Your task to perform on an android device: What's the weather going to be tomorrow? Image 0: 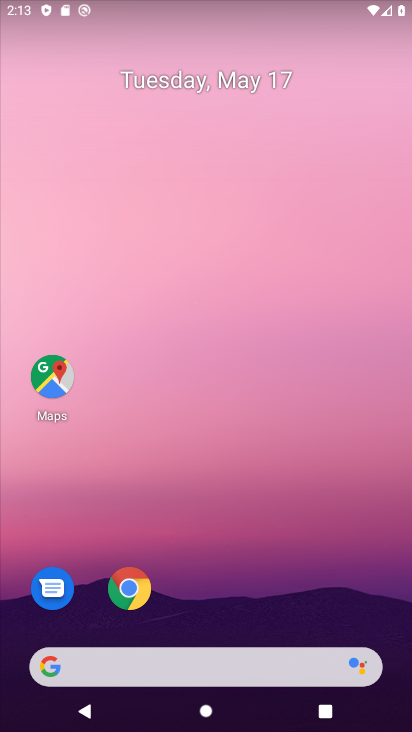
Step 0: drag from (264, 539) to (198, 87)
Your task to perform on an android device: What's the weather going to be tomorrow? Image 1: 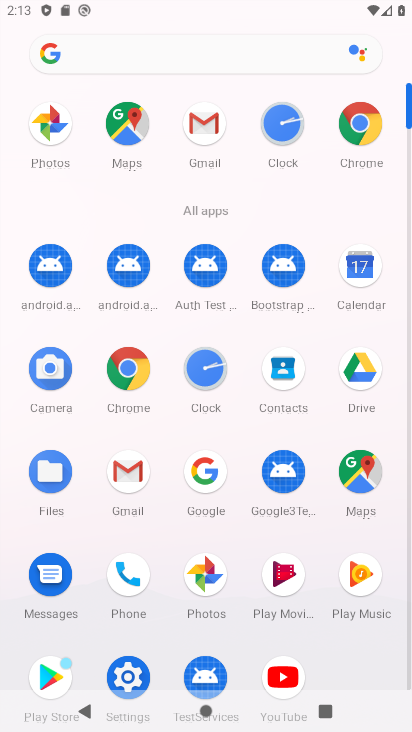
Step 1: click (209, 475)
Your task to perform on an android device: What's the weather going to be tomorrow? Image 2: 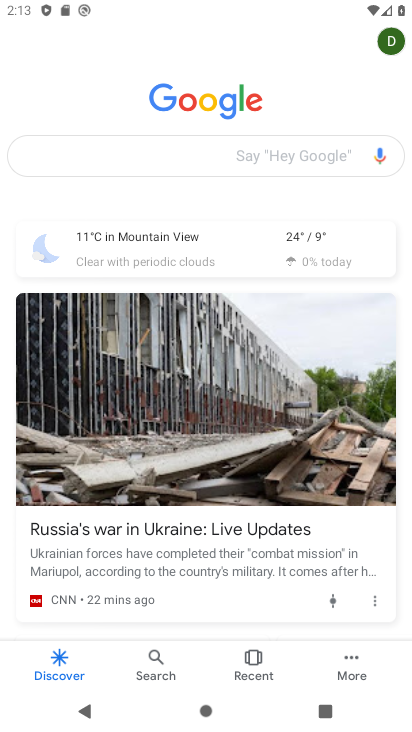
Step 2: click (179, 242)
Your task to perform on an android device: What's the weather going to be tomorrow? Image 3: 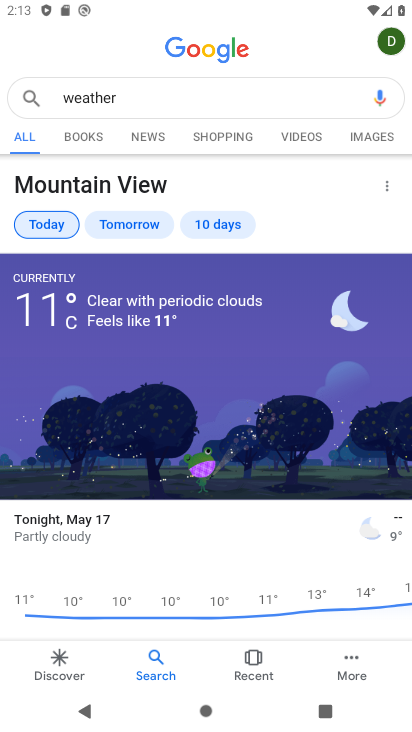
Step 3: click (127, 222)
Your task to perform on an android device: What's the weather going to be tomorrow? Image 4: 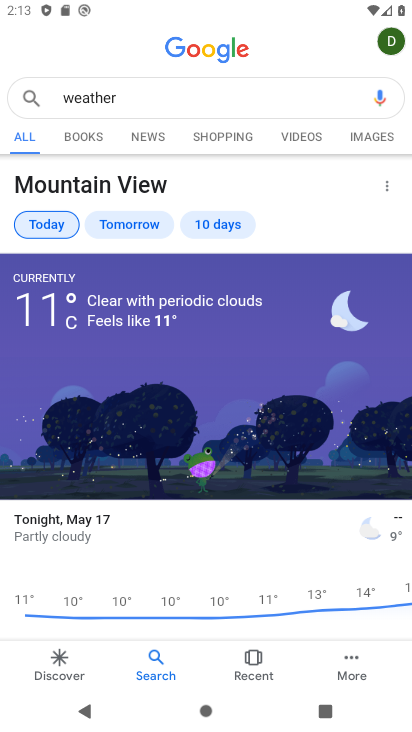
Step 4: click (137, 221)
Your task to perform on an android device: What's the weather going to be tomorrow? Image 5: 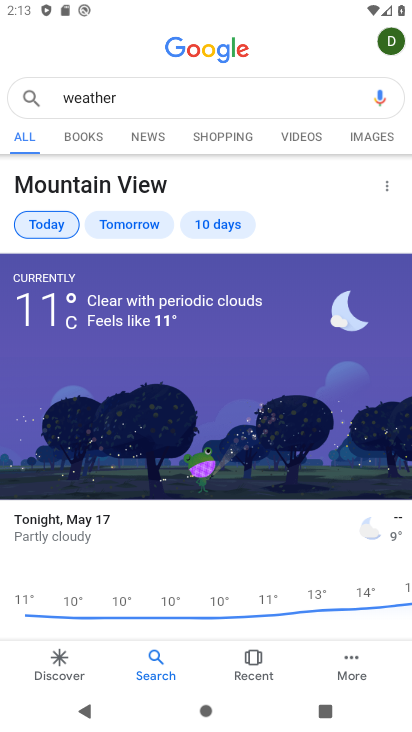
Step 5: click (142, 102)
Your task to perform on an android device: What's the weather going to be tomorrow? Image 6: 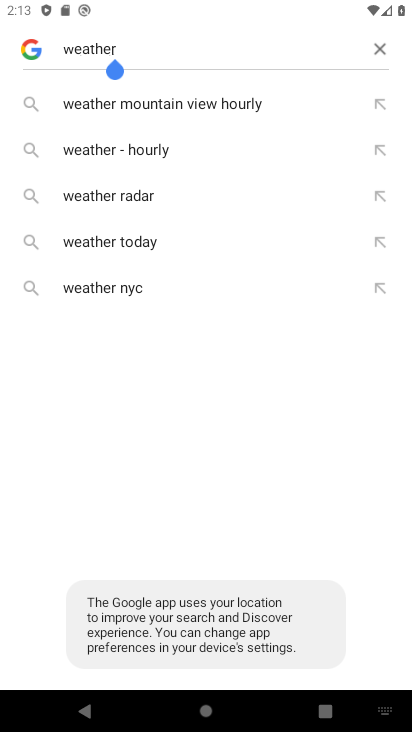
Step 6: click (373, 47)
Your task to perform on an android device: What's the weather going to be tomorrow? Image 7: 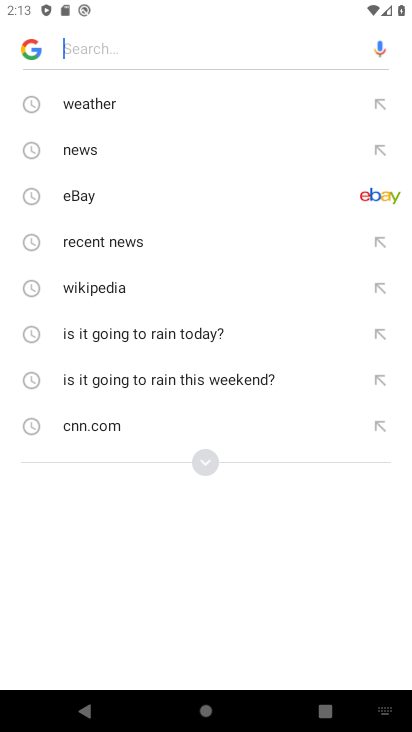
Step 7: type "What's the weather going to be tomorrow?"
Your task to perform on an android device: What's the weather going to be tomorrow? Image 8: 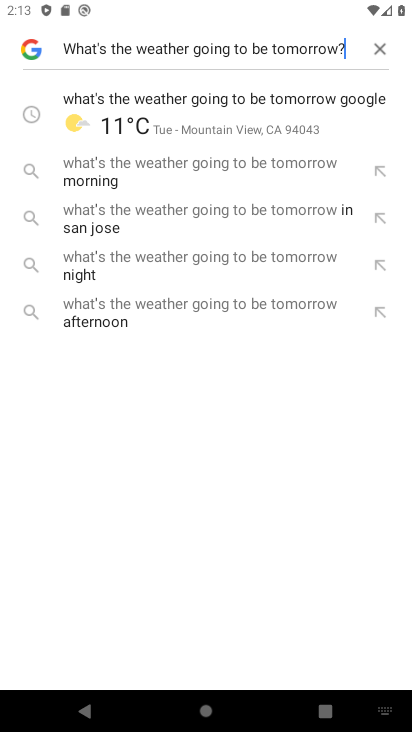
Step 8: click (259, 107)
Your task to perform on an android device: What's the weather going to be tomorrow? Image 9: 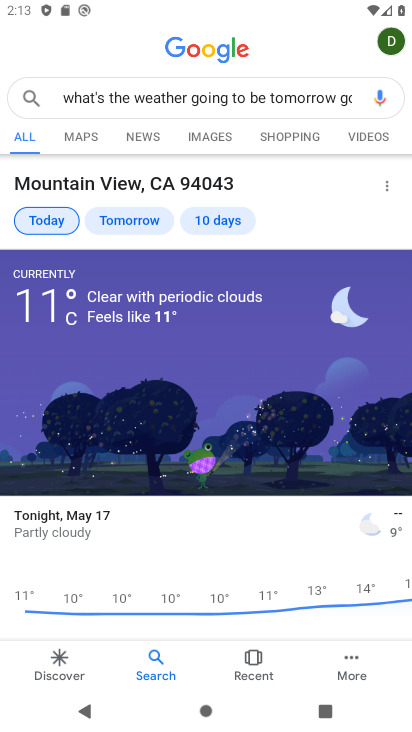
Step 9: click (137, 219)
Your task to perform on an android device: What's the weather going to be tomorrow? Image 10: 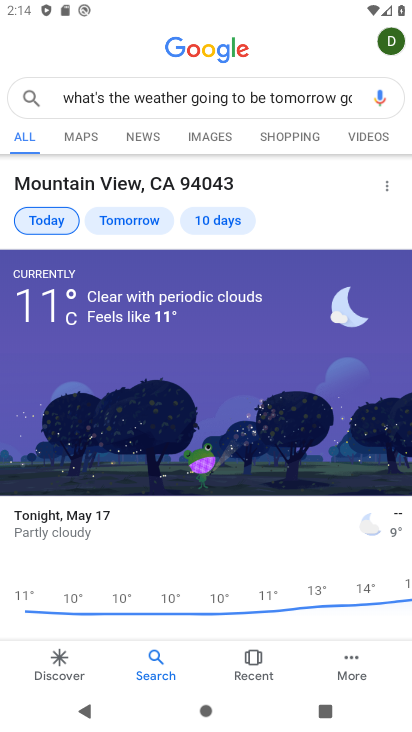
Step 10: click (137, 219)
Your task to perform on an android device: What's the weather going to be tomorrow? Image 11: 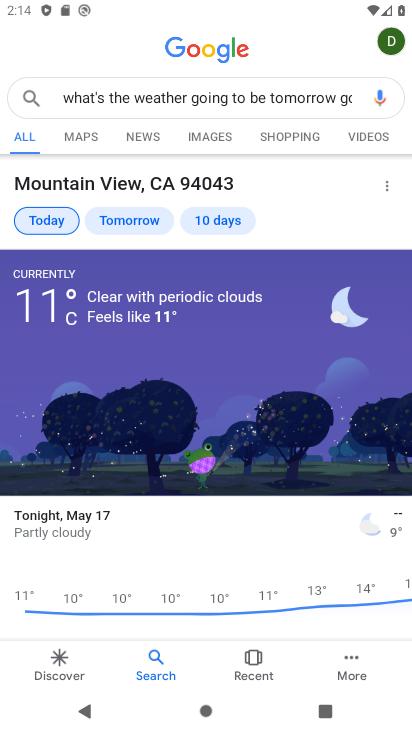
Step 11: click (137, 219)
Your task to perform on an android device: What's the weather going to be tomorrow? Image 12: 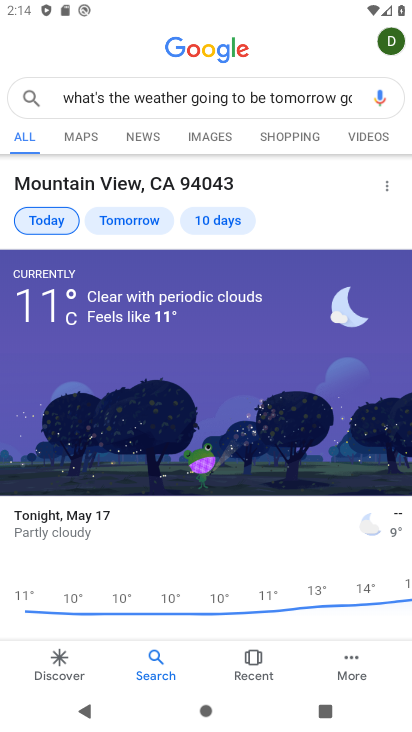
Step 12: click (137, 219)
Your task to perform on an android device: What's the weather going to be tomorrow? Image 13: 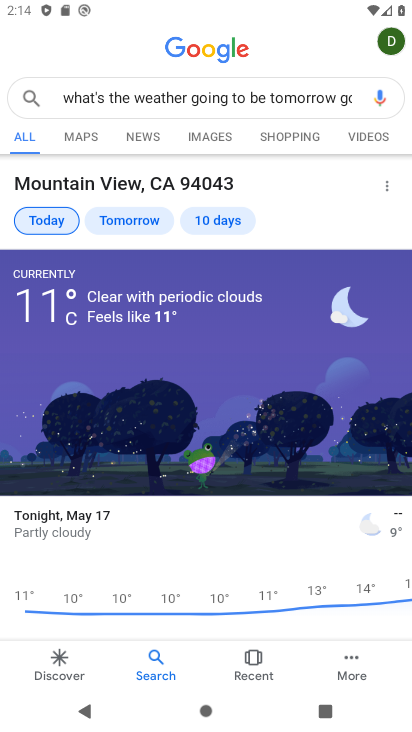
Step 13: drag from (206, 552) to (237, 126)
Your task to perform on an android device: What's the weather going to be tomorrow? Image 14: 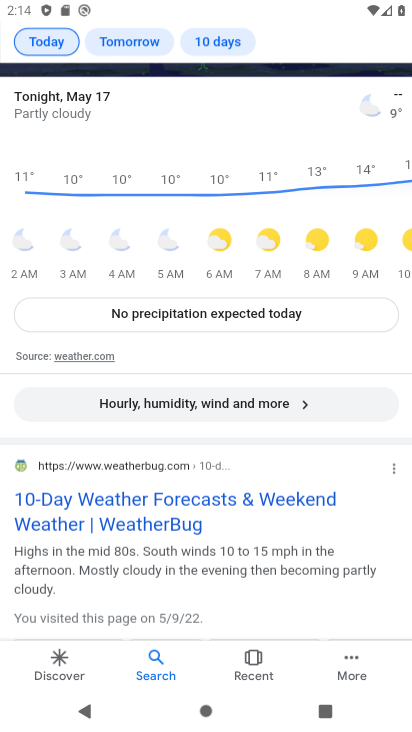
Step 14: click (172, 504)
Your task to perform on an android device: What's the weather going to be tomorrow? Image 15: 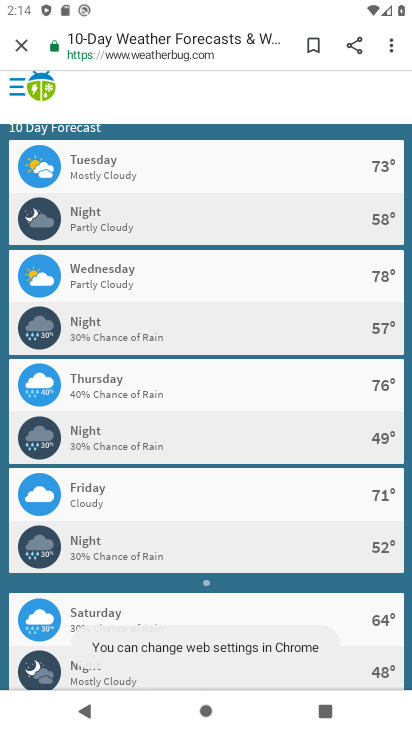
Step 15: task complete